Your task to perform on an android device: Open Maps and search for coffee Image 0: 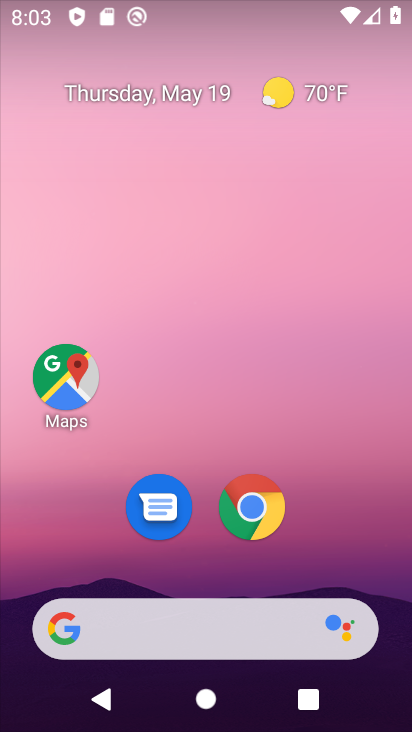
Step 0: click (76, 385)
Your task to perform on an android device: Open Maps and search for coffee Image 1: 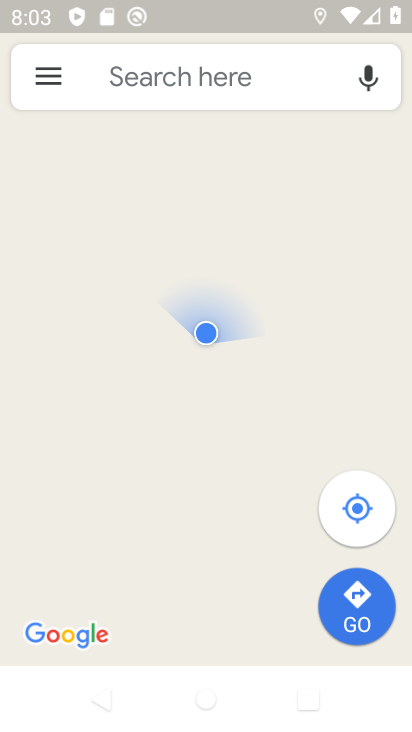
Step 1: click (157, 76)
Your task to perform on an android device: Open Maps and search for coffee Image 2: 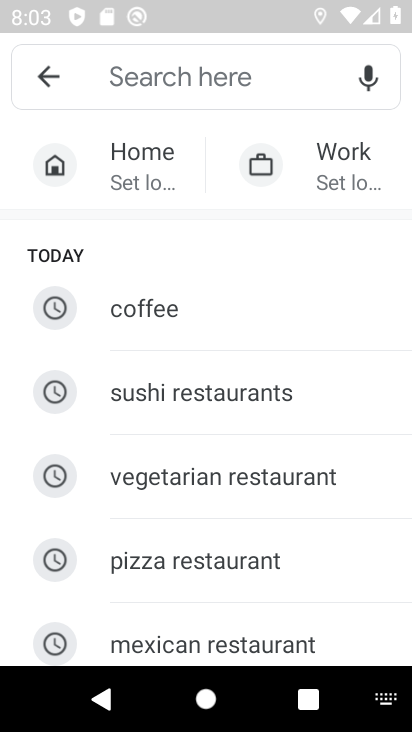
Step 2: click (193, 317)
Your task to perform on an android device: Open Maps and search for coffee Image 3: 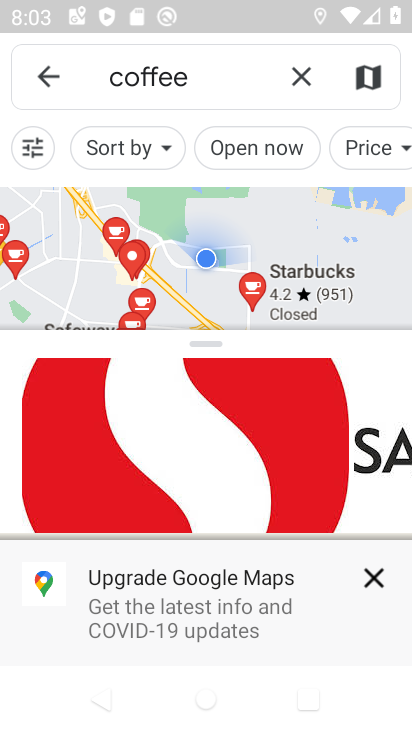
Step 3: task complete